Your task to perform on an android device: find which apps use the phone's location Image 0: 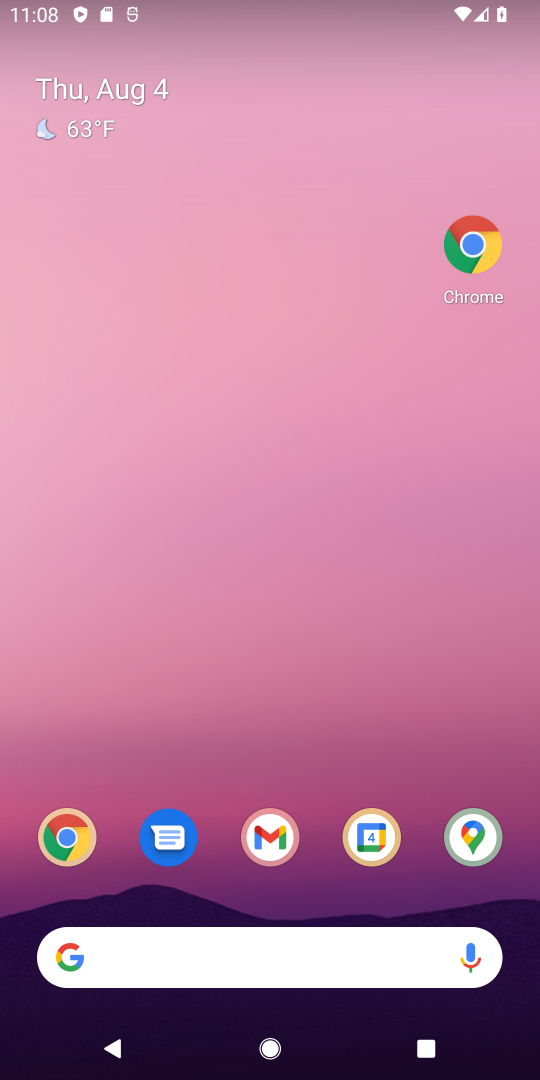
Step 0: drag from (313, 897) to (340, 139)
Your task to perform on an android device: find which apps use the phone's location Image 1: 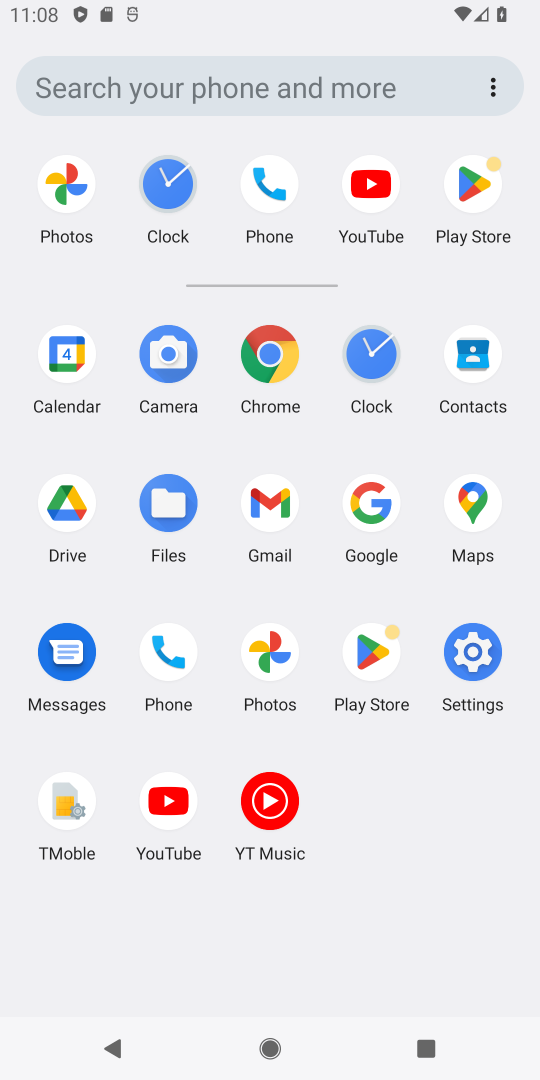
Step 1: click (470, 645)
Your task to perform on an android device: find which apps use the phone's location Image 2: 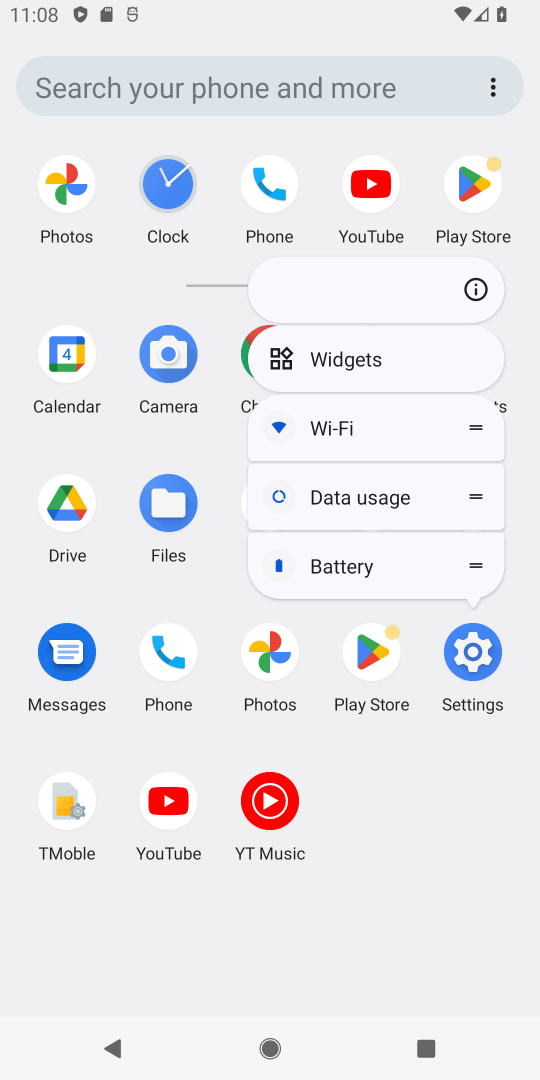
Step 2: click (470, 644)
Your task to perform on an android device: find which apps use the phone's location Image 3: 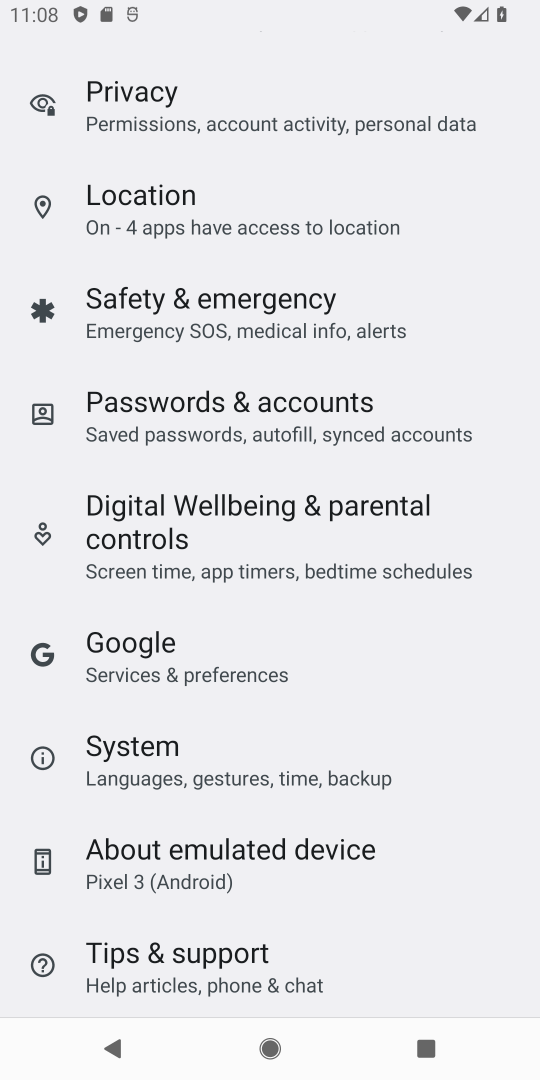
Step 3: click (203, 202)
Your task to perform on an android device: find which apps use the phone's location Image 4: 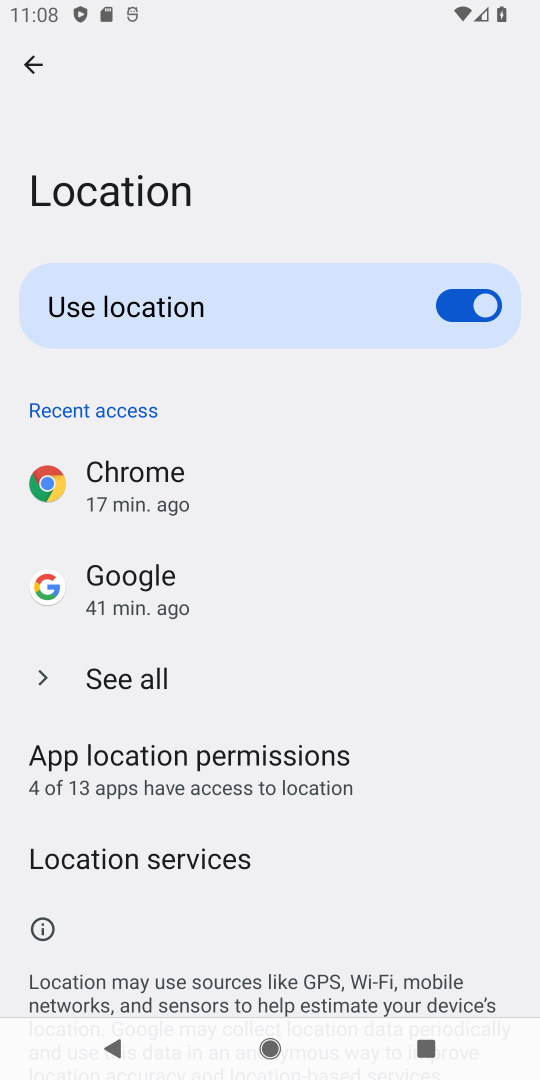
Step 4: click (255, 760)
Your task to perform on an android device: find which apps use the phone's location Image 5: 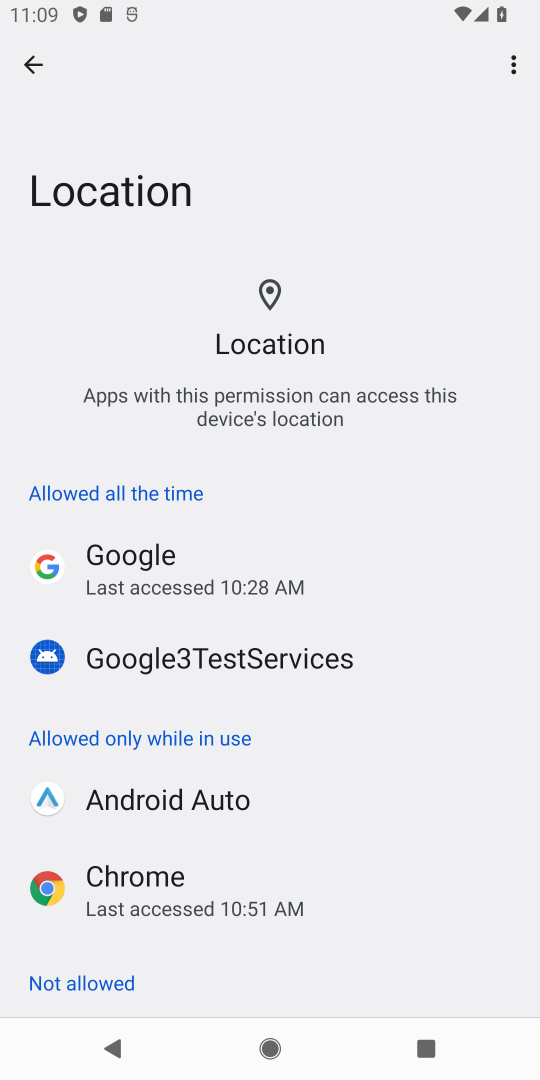
Step 5: task complete